Your task to perform on an android device: Toggle the flashlight Image 0: 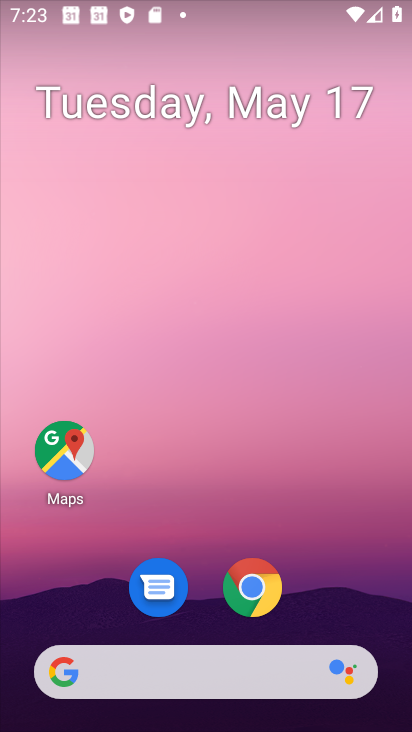
Step 0: drag from (290, 709) to (387, 181)
Your task to perform on an android device: Toggle the flashlight Image 1: 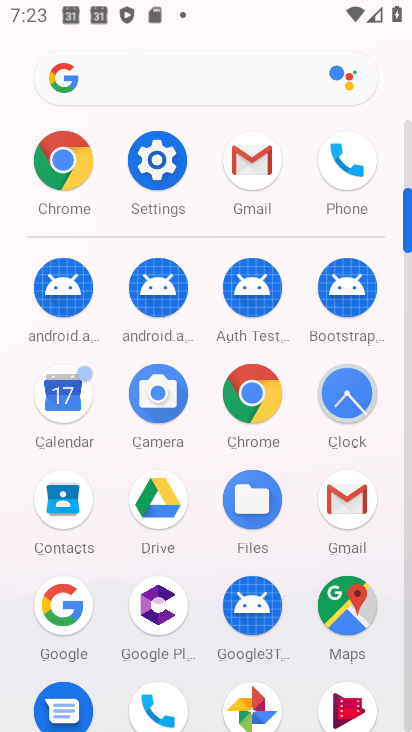
Step 1: click (171, 167)
Your task to perform on an android device: Toggle the flashlight Image 2: 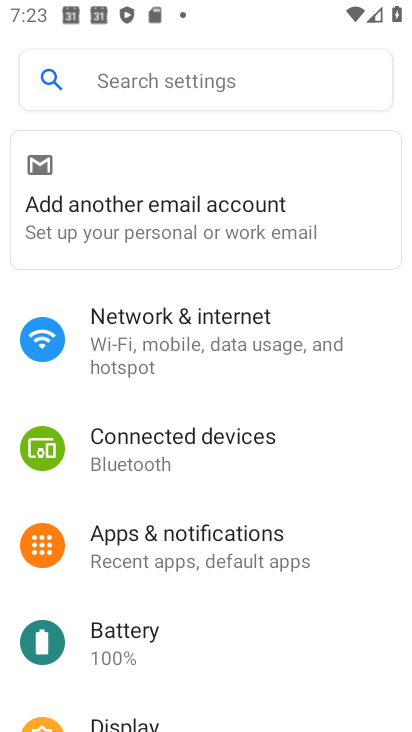
Step 2: click (159, 75)
Your task to perform on an android device: Toggle the flashlight Image 3: 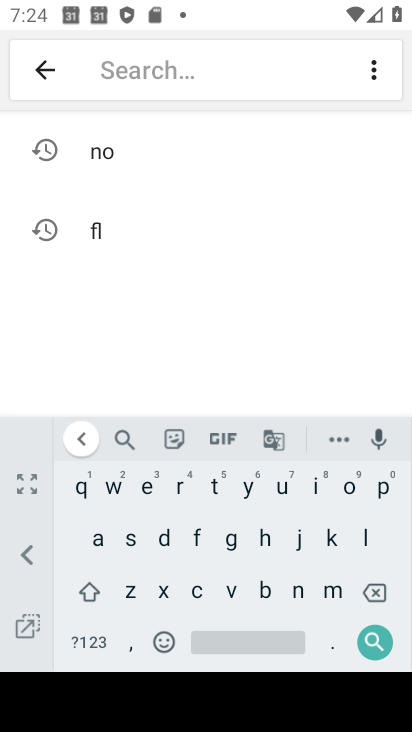
Step 3: click (192, 538)
Your task to perform on an android device: Toggle the flashlight Image 4: 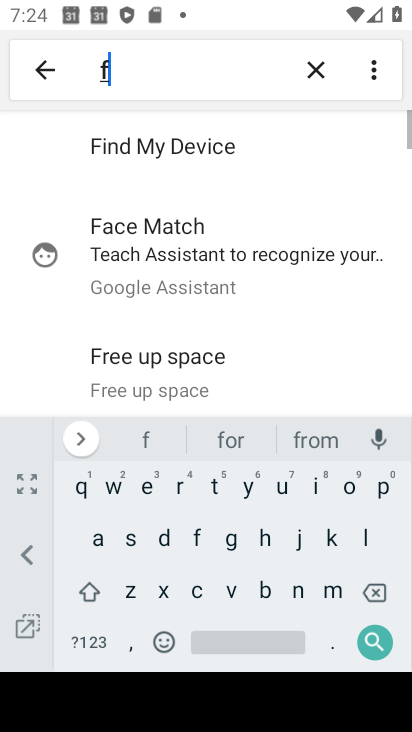
Step 4: click (357, 538)
Your task to perform on an android device: Toggle the flashlight Image 5: 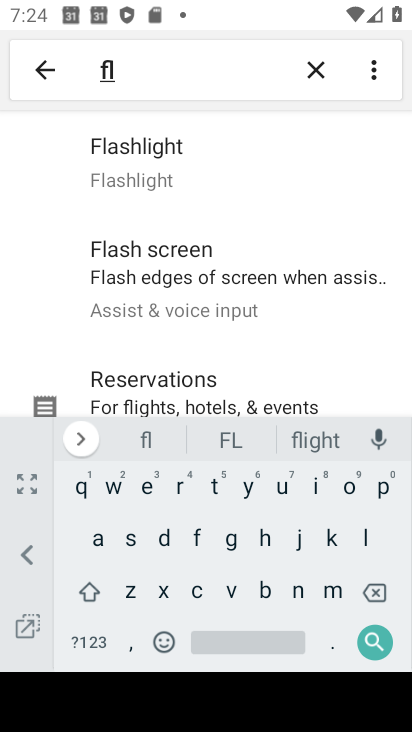
Step 5: click (15, 490)
Your task to perform on an android device: Toggle the flashlight Image 6: 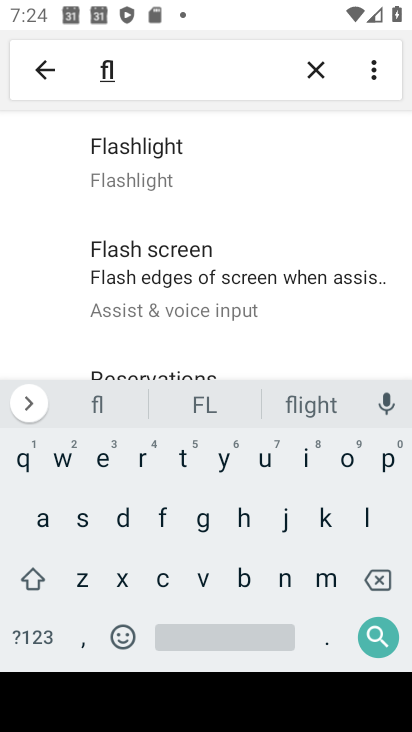
Step 6: click (211, 150)
Your task to perform on an android device: Toggle the flashlight Image 7: 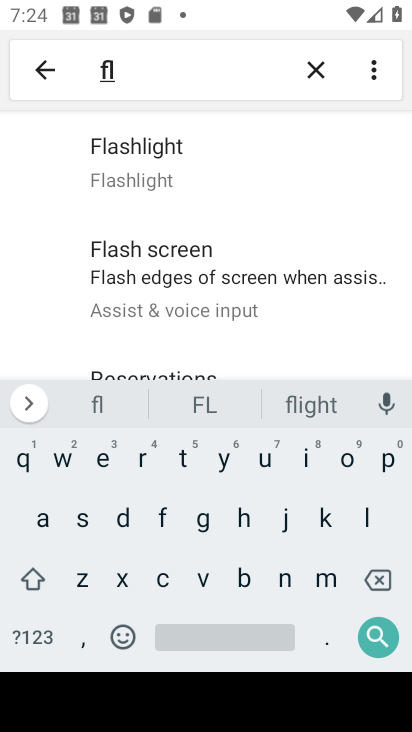
Step 7: task complete